Your task to perform on an android device: See recent photos Image 0: 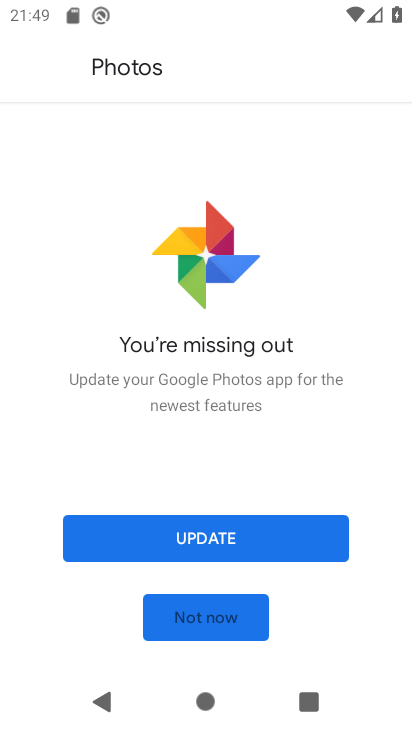
Step 0: click (222, 618)
Your task to perform on an android device: See recent photos Image 1: 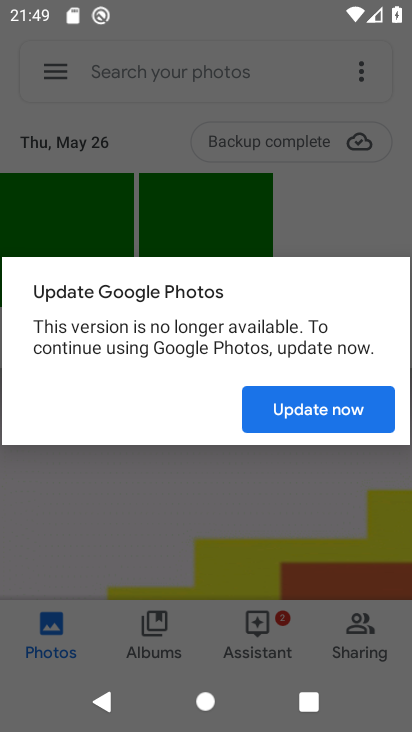
Step 1: click (355, 406)
Your task to perform on an android device: See recent photos Image 2: 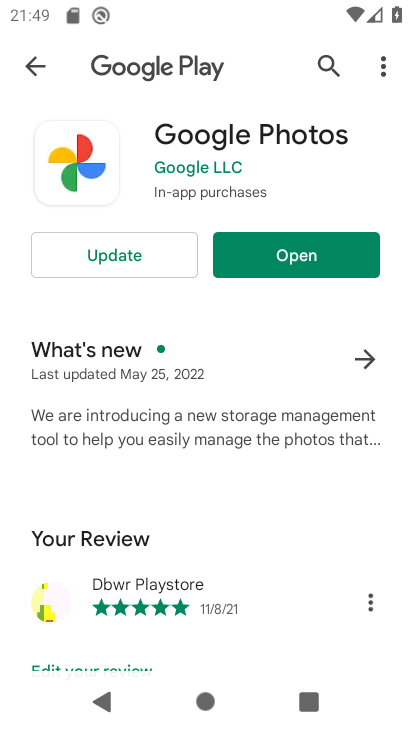
Step 2: click (321, 244)
Your task to perform on an android device: See recent photos Image 3: 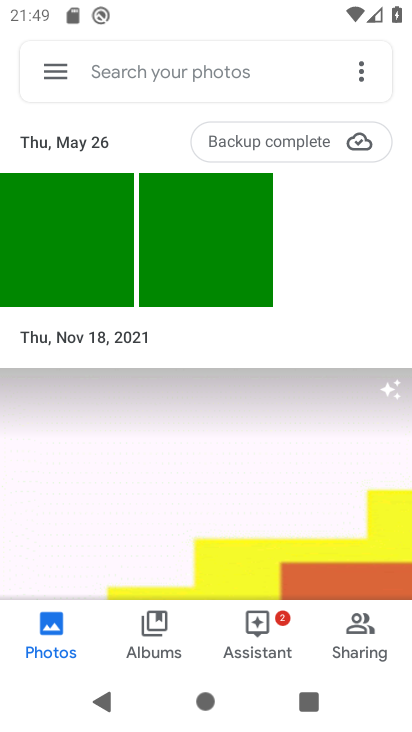
Step 3: click (37, 612)
Your task to perform on an android device: See recent photos Image 4: 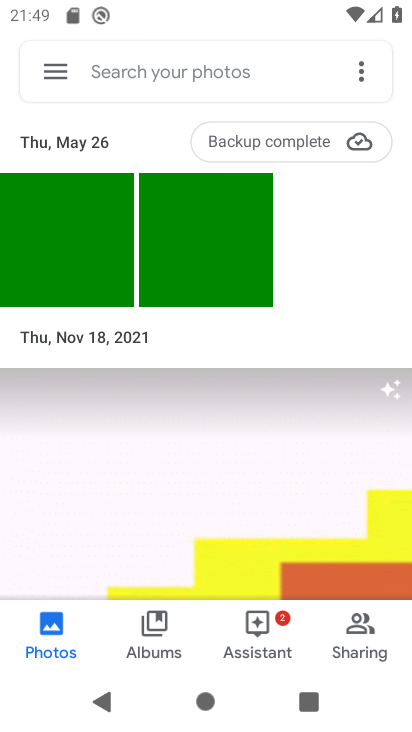
Step 4: click (92, 242)
Your task to perform on an android device: See recent photos Image 5: 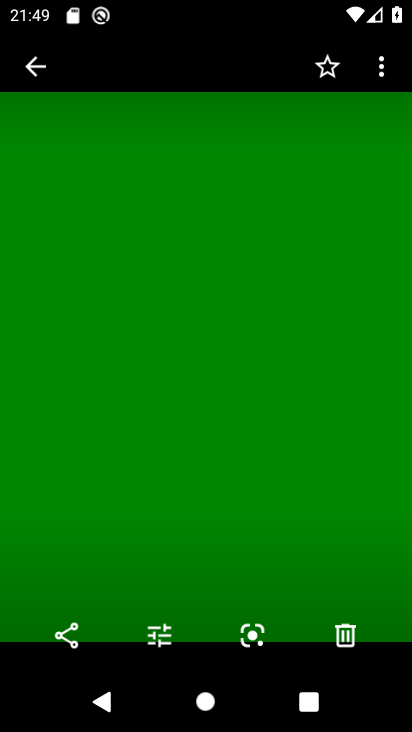
Step 5: task complete